Your task to perform on an android device: change notification settings in the gmail app Image 0: 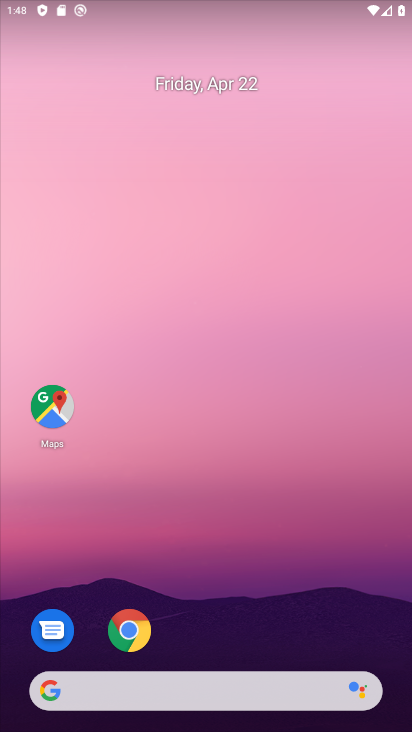
Step 0: drag from (200, 622) to (237, 111)
Your task to perform on an android device: change notification settings in the gmail app Image 1: 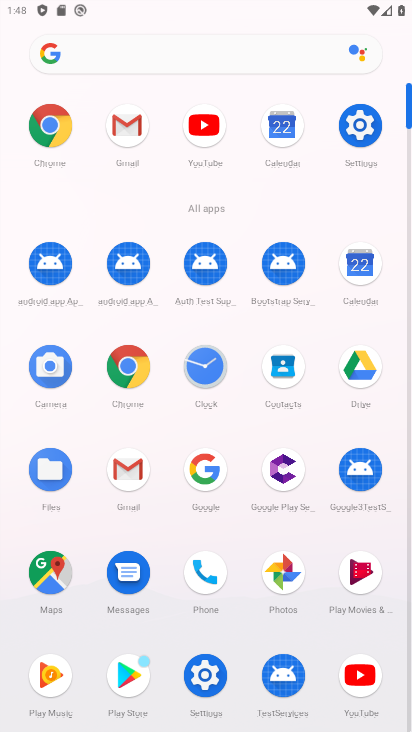
Step 1: click (125, 466)
Your task to perform on an android device: change notification settings in the gmail app Image 2: 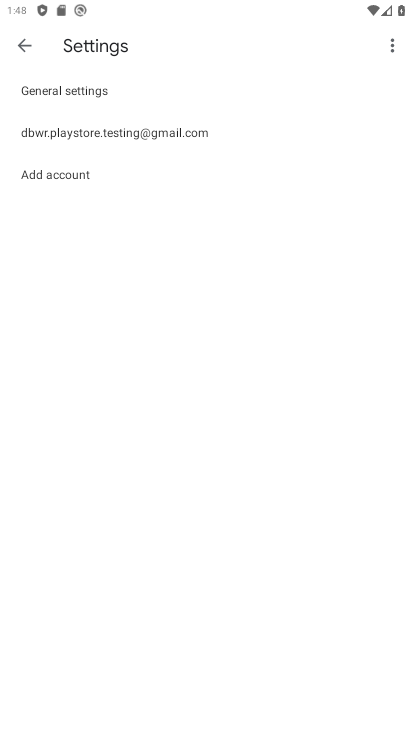
Step 2: click (89, 92)
Your task to perform on an android device: change notification settings in the gmail app Image 3: 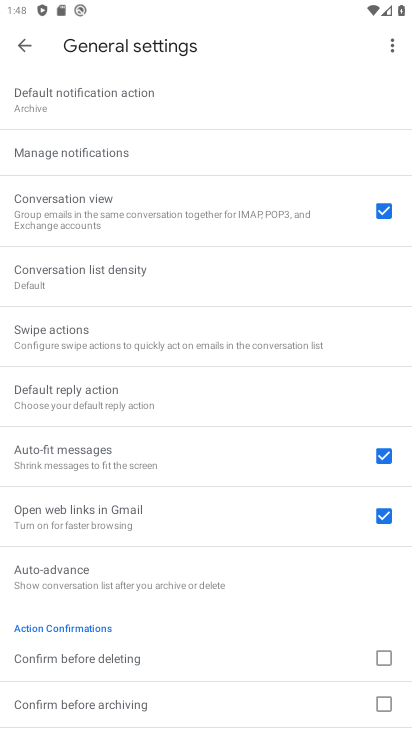
Step 3: click (101, 150)
Your task to perform on an android device: change notification settings in the gmail app Image 4: 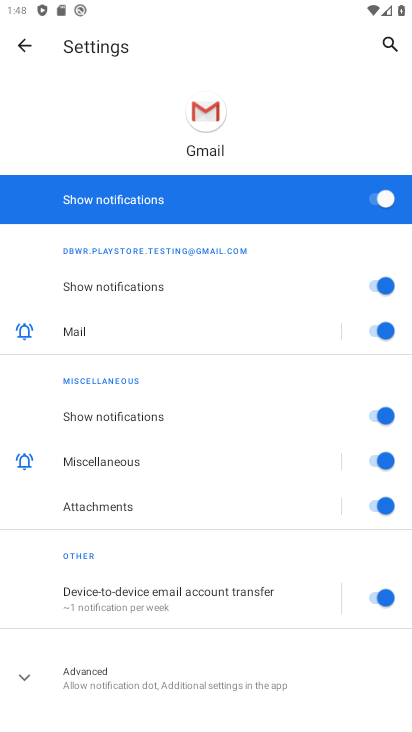
Step 4: click (379, 188)
Your task to perform on an android device: change notification settings in the gmail app Image 5: 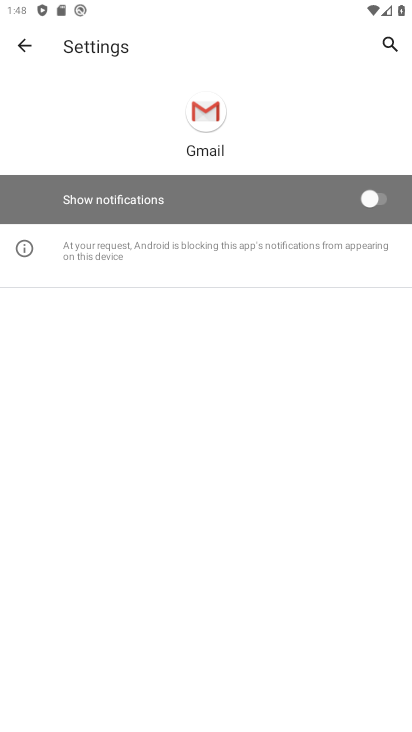
Step 5: task complete